Your task to perform on an android device: Go to wifi settings Image 0: 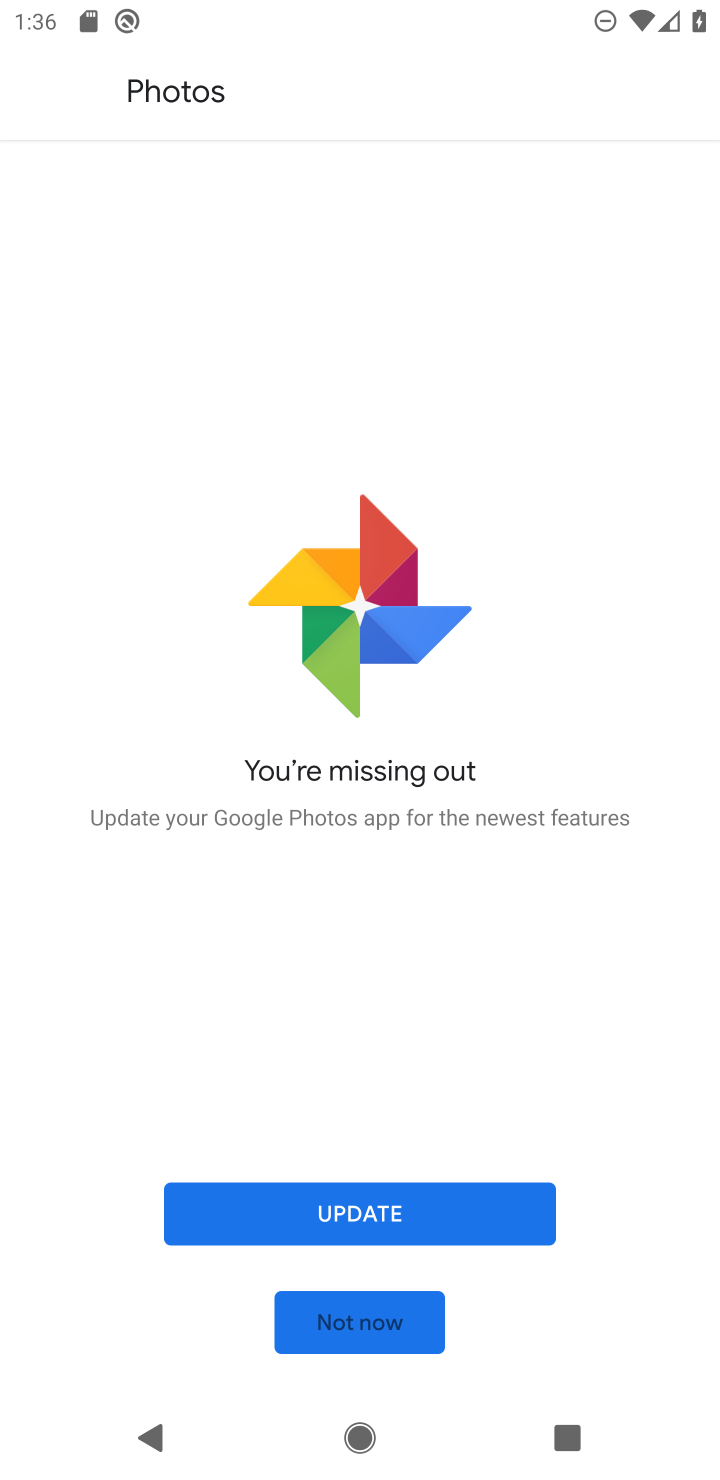
Step 0: press home button
Your task to perform on an android device: Go to wifi settings Image 1: 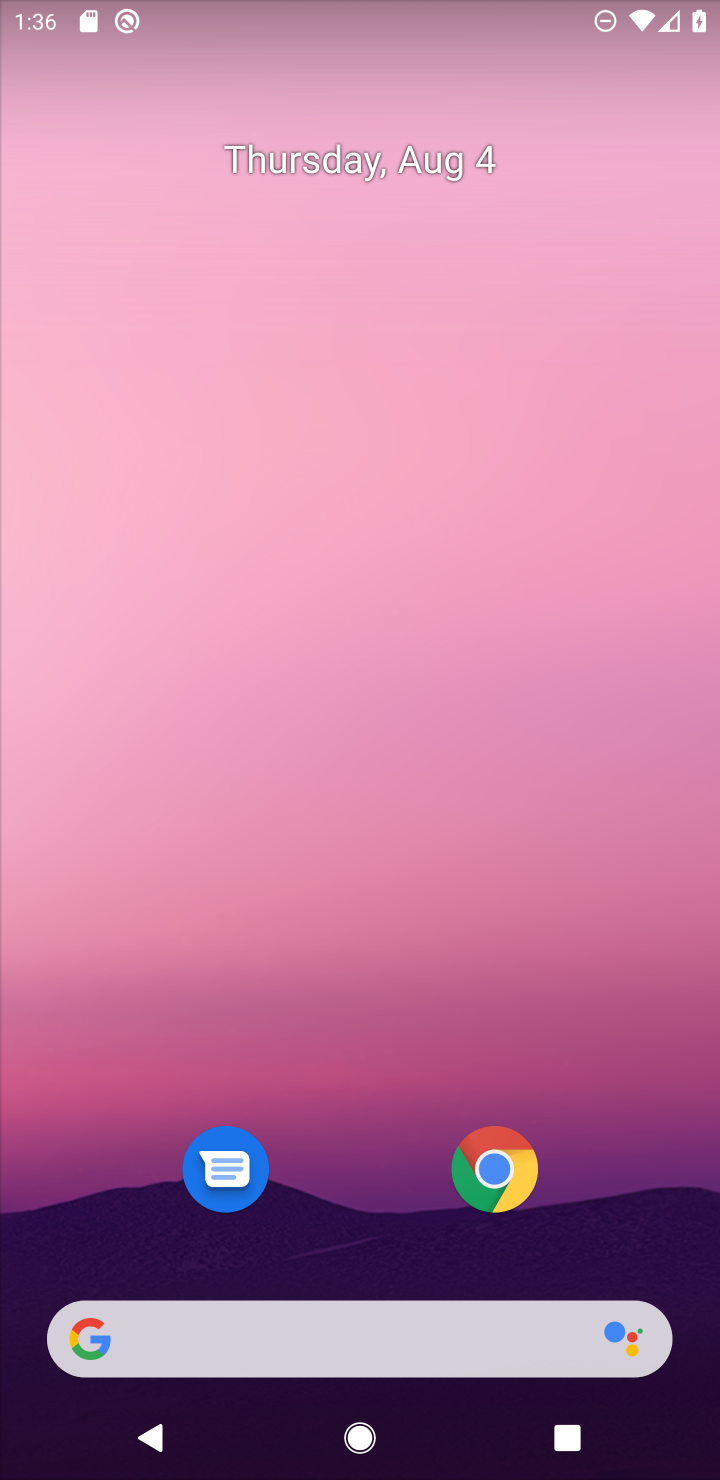
Step 1: drag from (368, 1221) to (369, 50)
Your task to perform on an android device: Go to wifi settings Image 2: 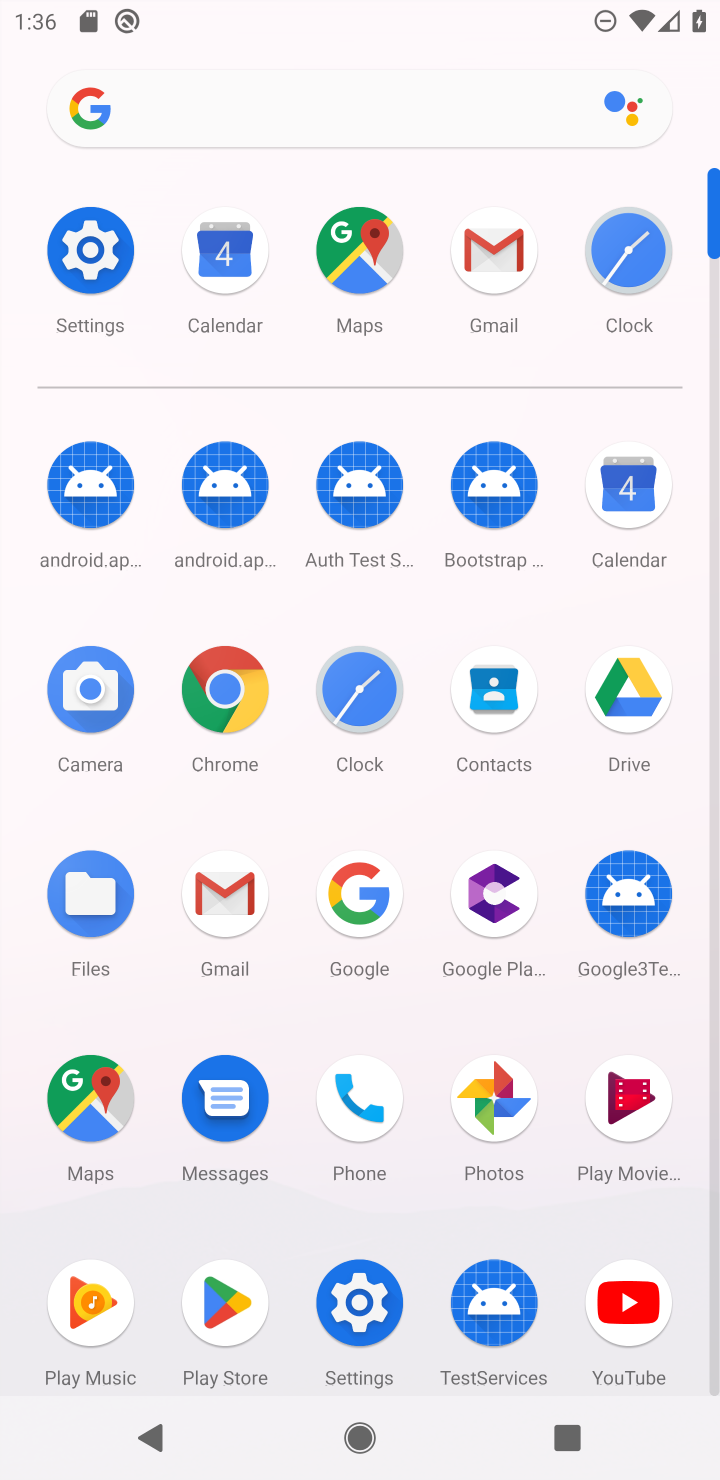
Step 2: click (89, 249)
Your task to perform on an android device: Go to wifi settings Image 3: 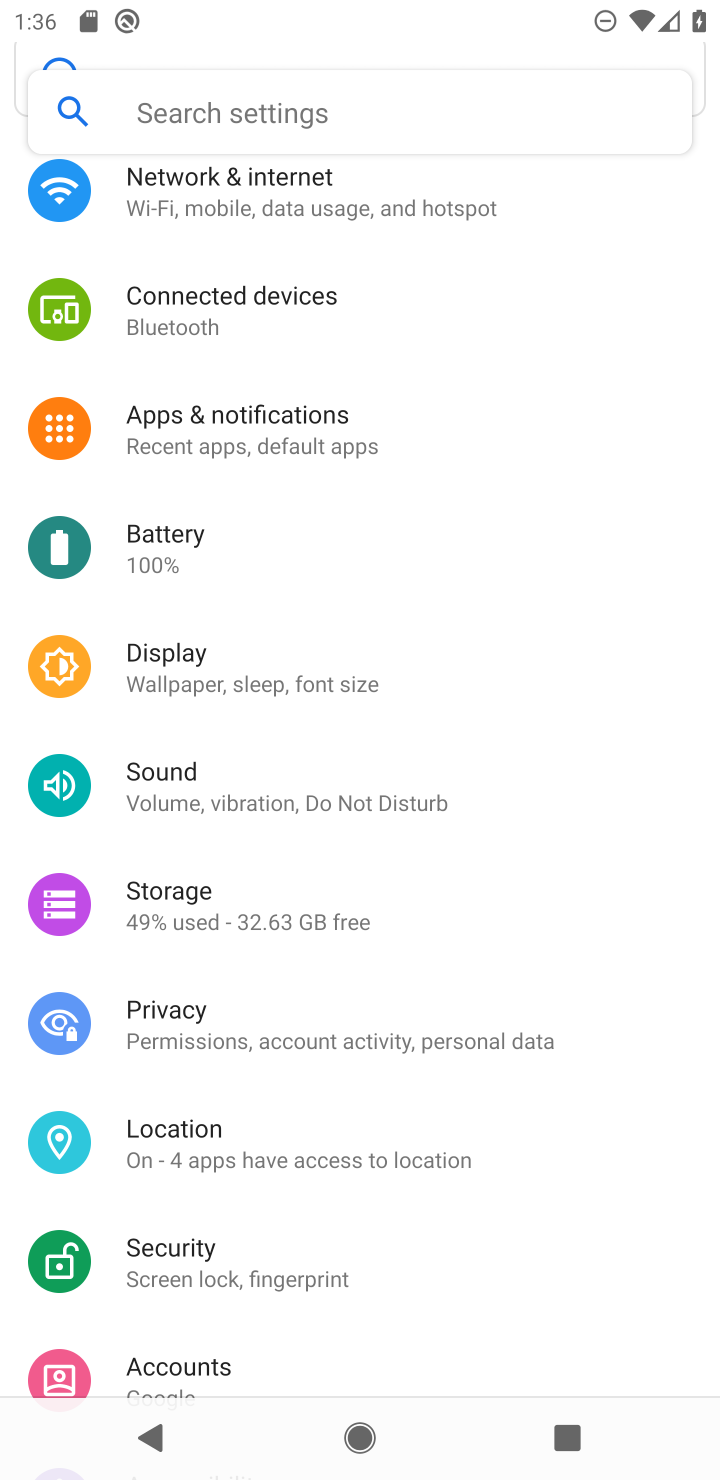
Step 3: click (217, 212)
Your task to perform on an android device: Go to wifi settings Image 4: 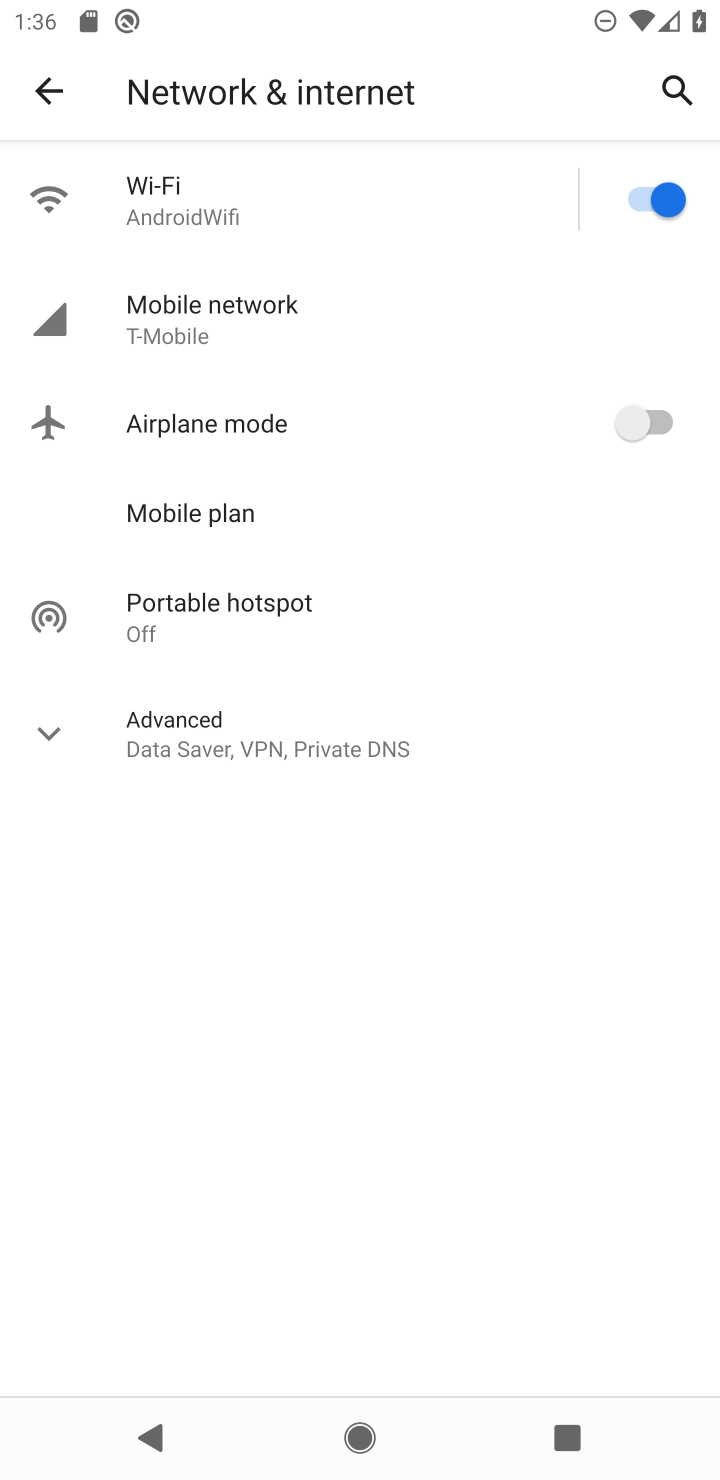
Step 4: click (43, 205)
Your task to perform on an android device: Go to wifi settings Image 5: 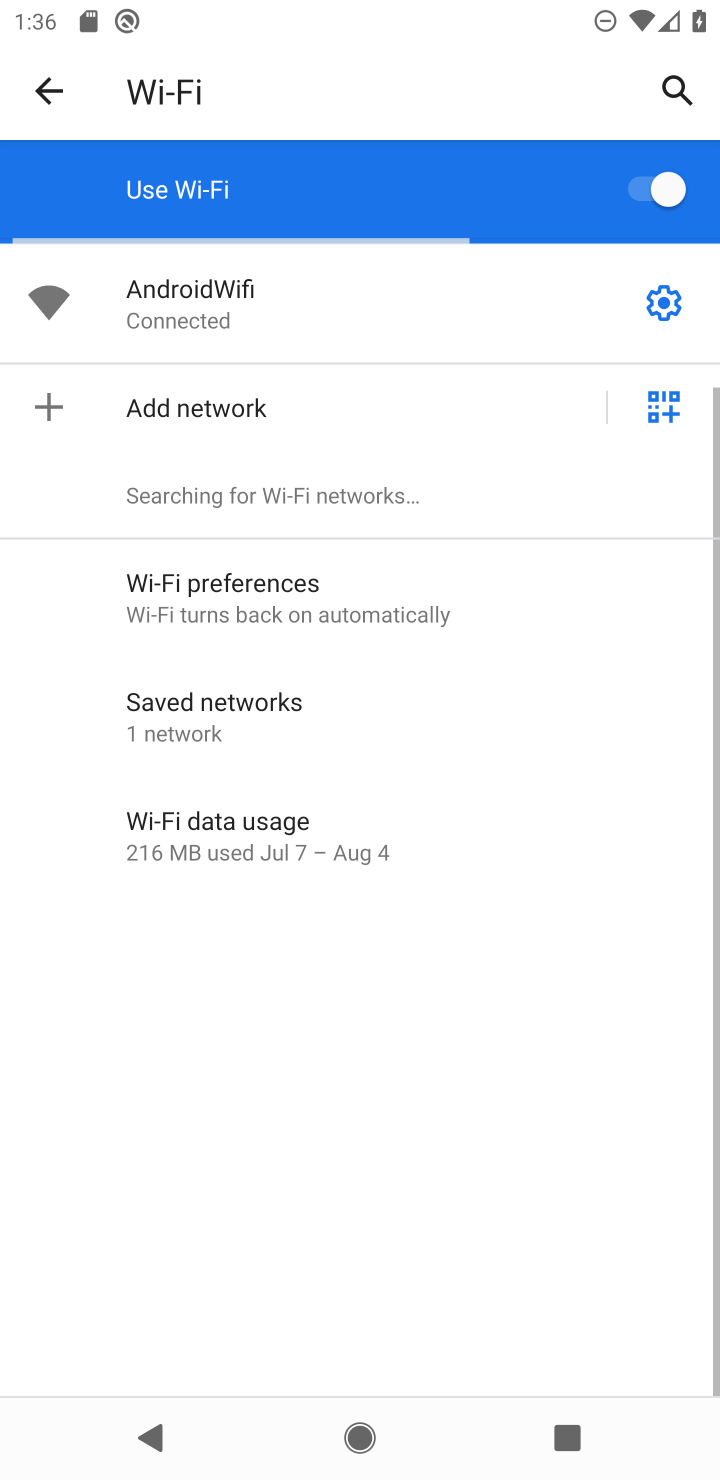
Step 5: task complete